Your task to perform on an android device: Go to Google Image 0: 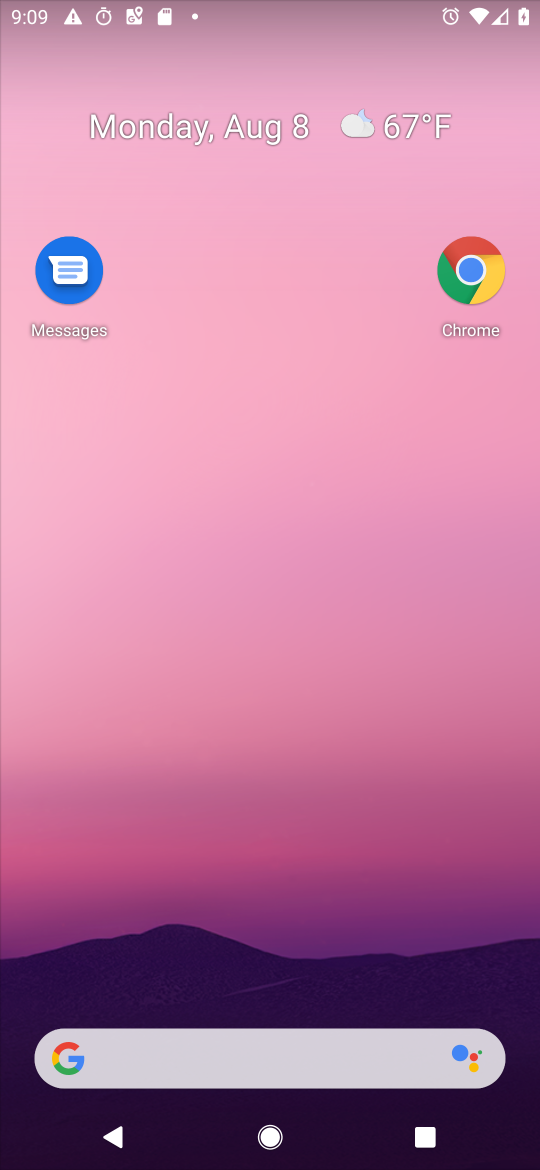
Step 0: click (241, 249)
Your task to perform on an android device: Go to Google Image 1: 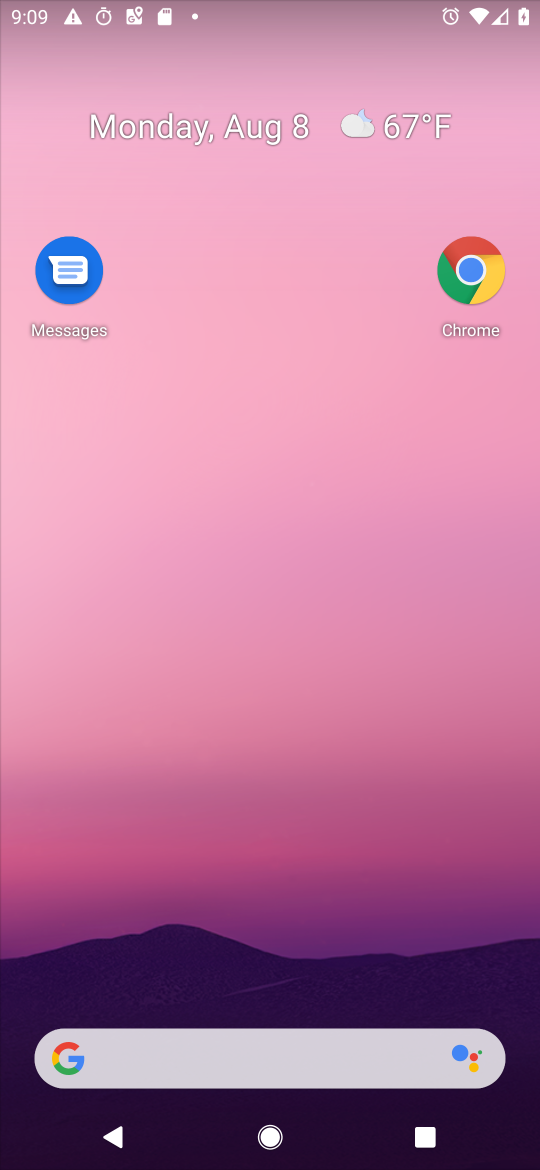
Step 1: drag from (276, 974) to (300, 273)
Your task to perform on an android device: Go to Google Image 2: 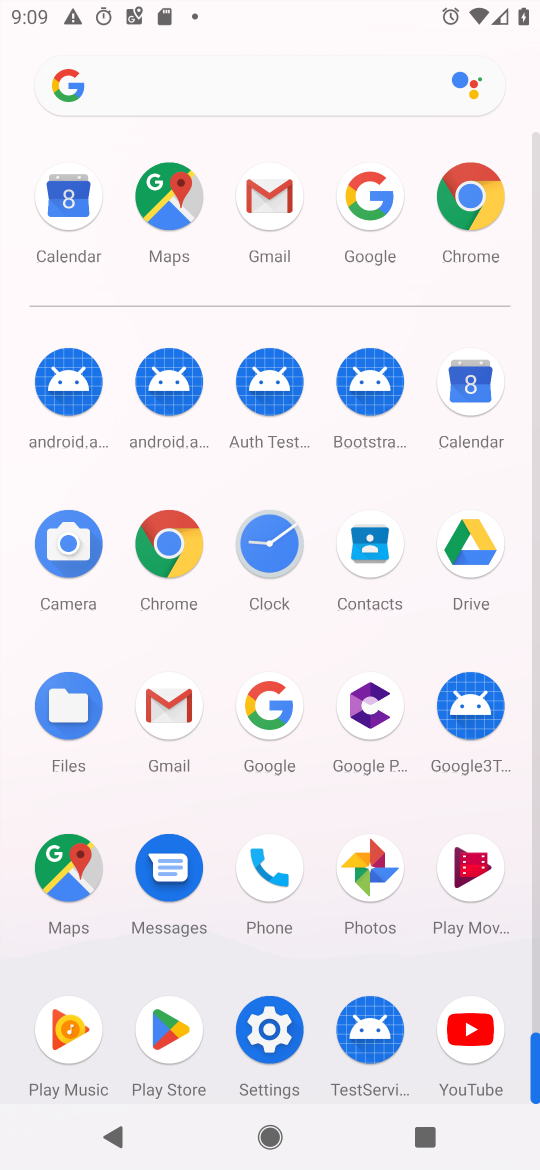
Step 2: click (276, 690)
Your task to perform on an android device: Go to Google Image 3: 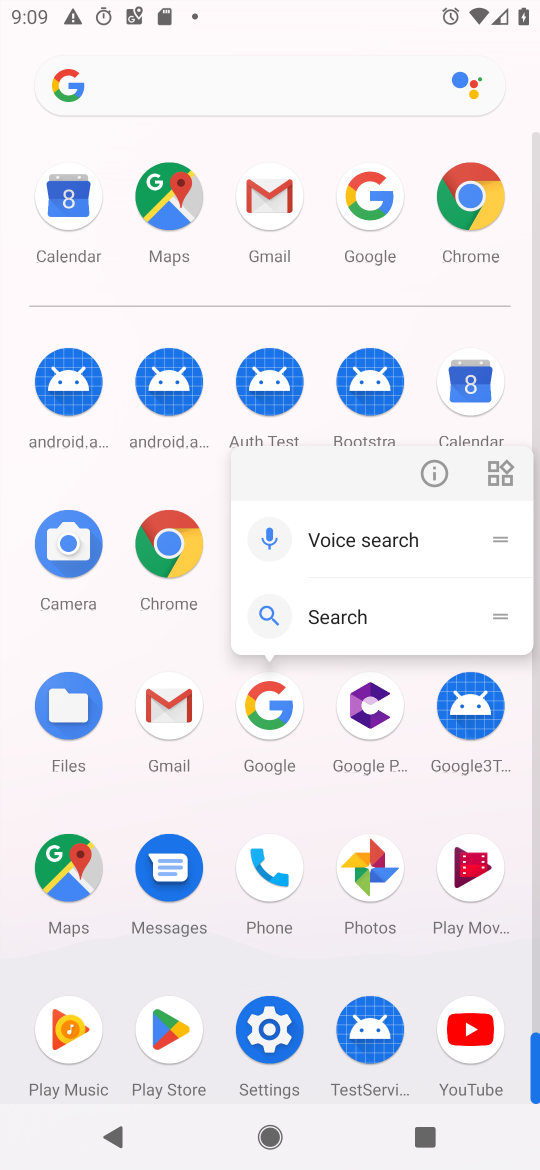
Step 3: click (427, 469)
Your task to perform on an android device: Go to Google Image 4: 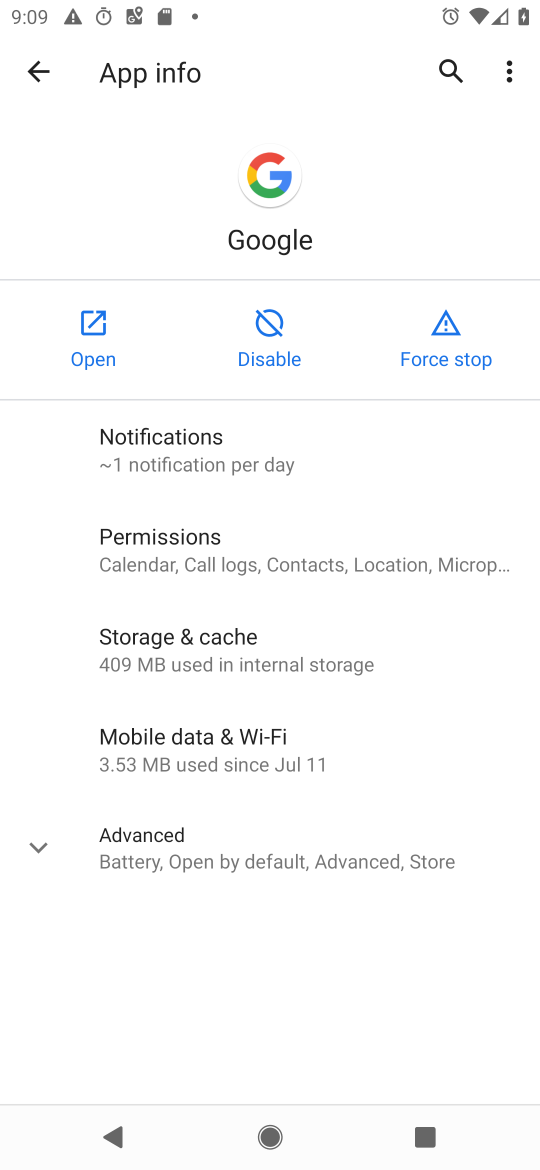
Step 4: click (88, 315)
Your task to perform on an android device: Go to Google Image 5: 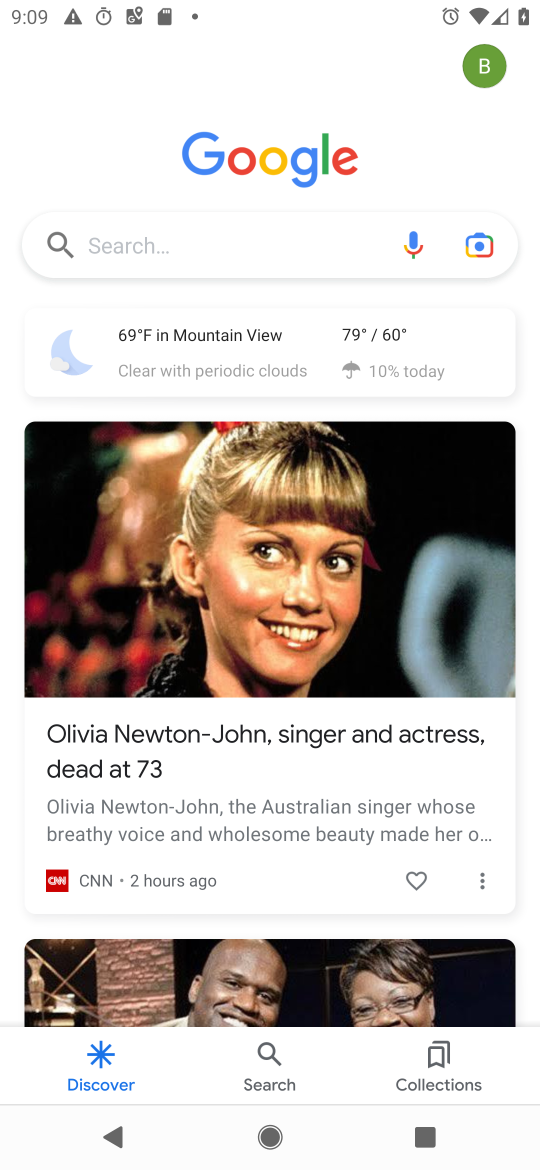
Step 5: task complete